Your task to perform on an android device: Search for asus rog on costco, select the first entry, add it to the cart, then select checkout. Image 0: 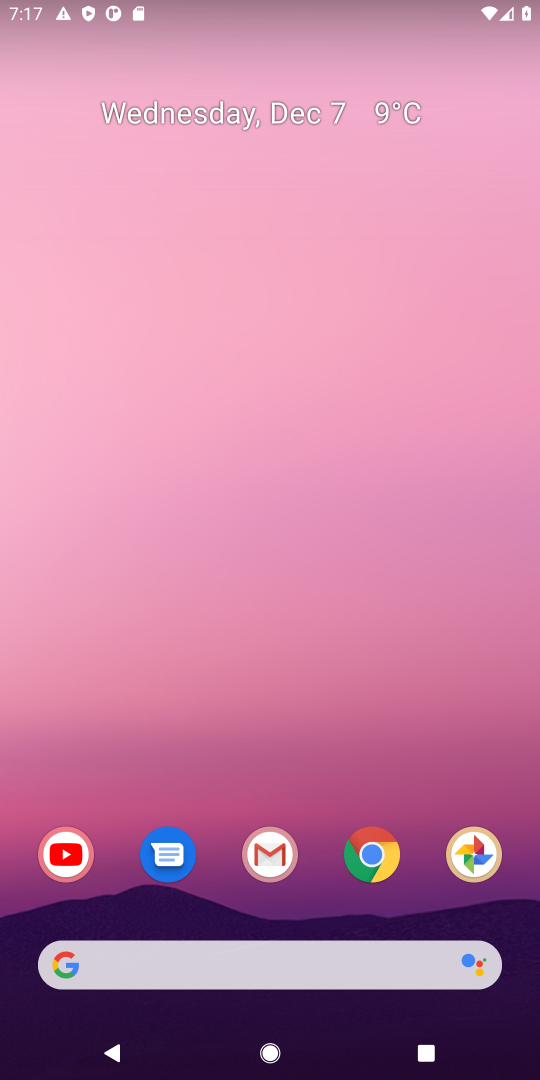
Step 0: click (170, 963)
Your task to perform on an android device: Search for asus rog on costco, select the first entry, add it to the cart, then select checkout. Image 1: 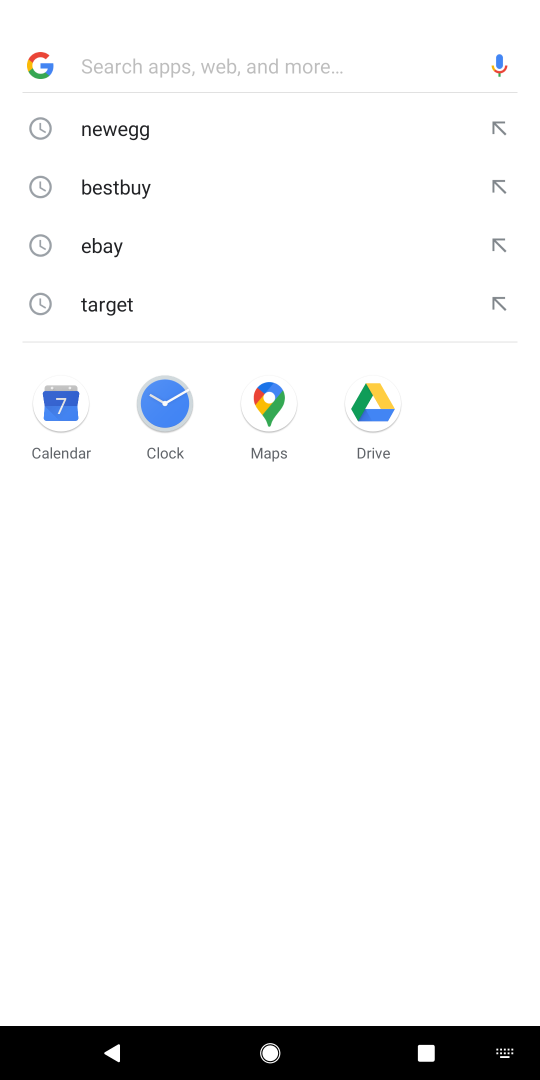
Step 1: type "costco"
Your task to perform on an android device: Search for asus rog on costco, select the first entry, add it to the cart, then select checkout. Image 2: 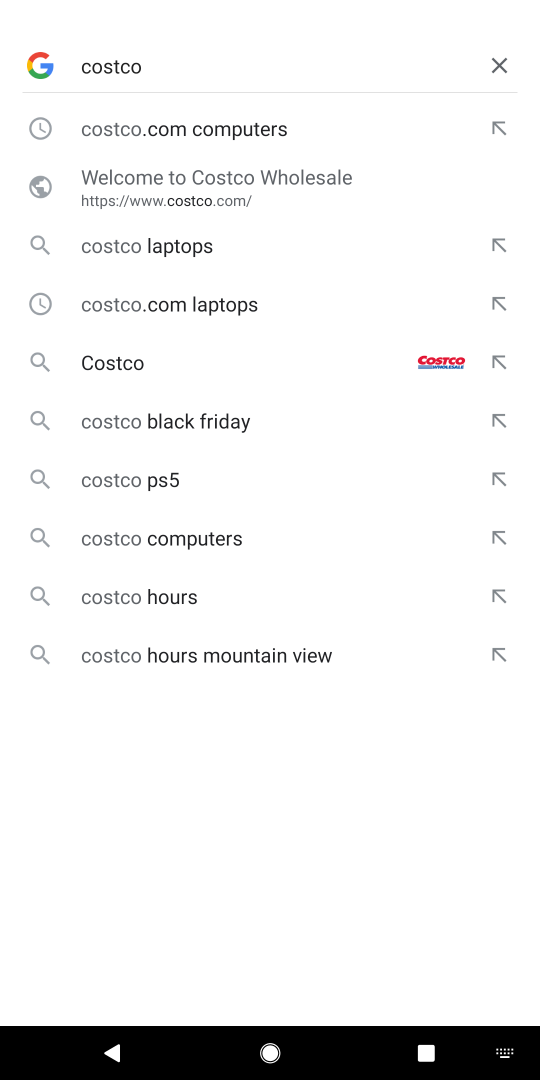
Step 2: click (152, 165)
Your task to perform on an android device: Search for asus rog on costco, select the first entry, add it to the cart, then select checkout. Image 3: 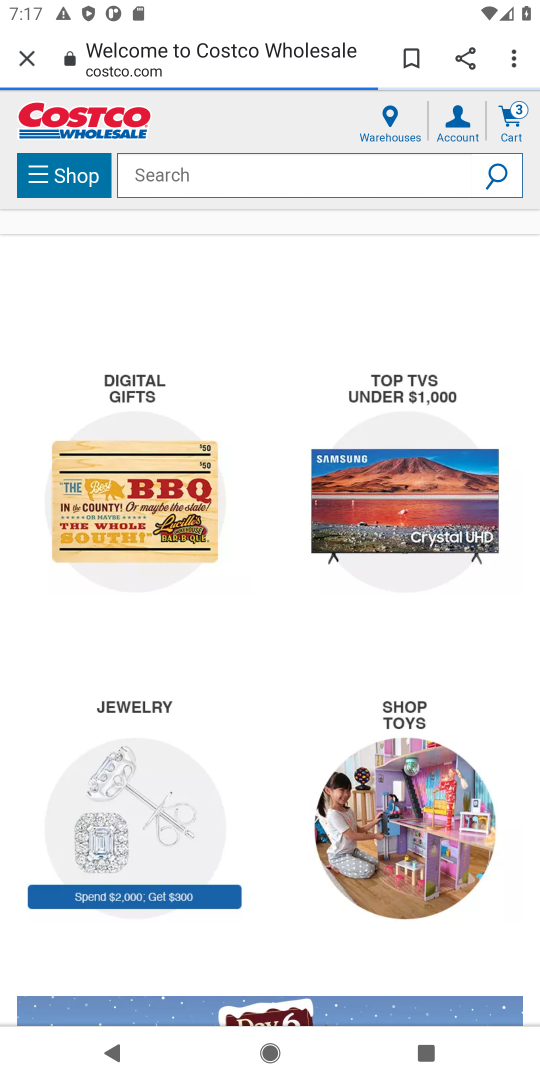
Step 3: click (152, 165)
Your task to perform on an android device: Search for asus rog on costco, select the first entry, add it to the cart, then select checkout. Image 4: 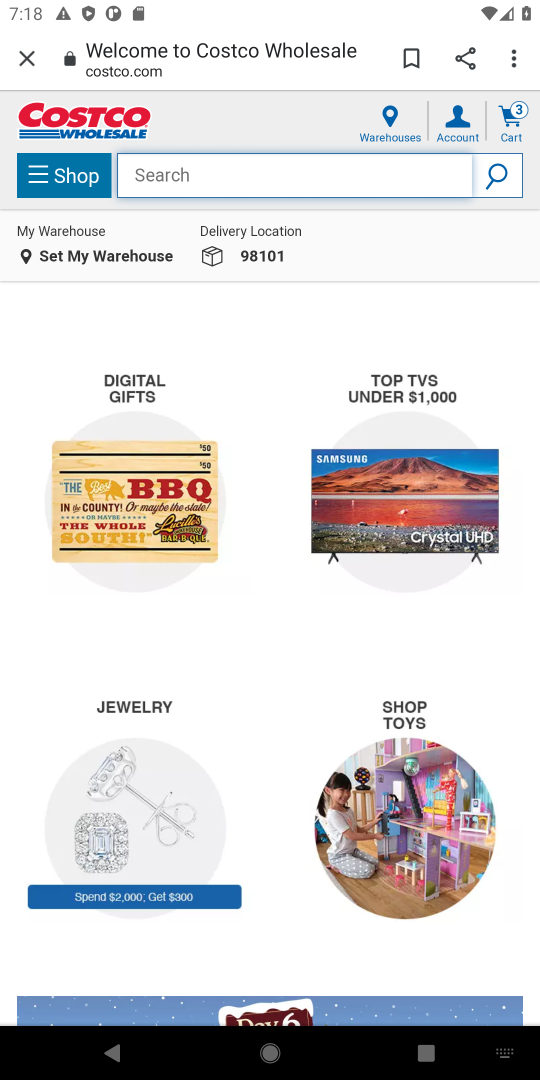
Step 4: type "asus rog"
Your task to perform on an android device: Search for asus rog on costco, select the first entry, add it to the cart, then select checkout. Image 5: 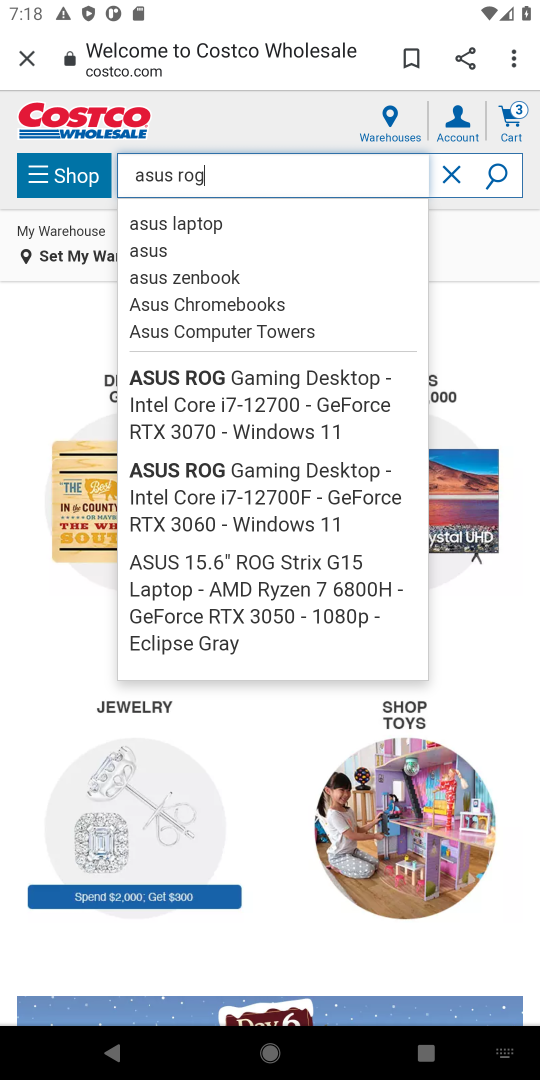
Step 5: click (494, 181)
Your task to perform on an android device: Search for asus rog on costco, select the first entry, add it to the cart, then select checkout. Image 6: 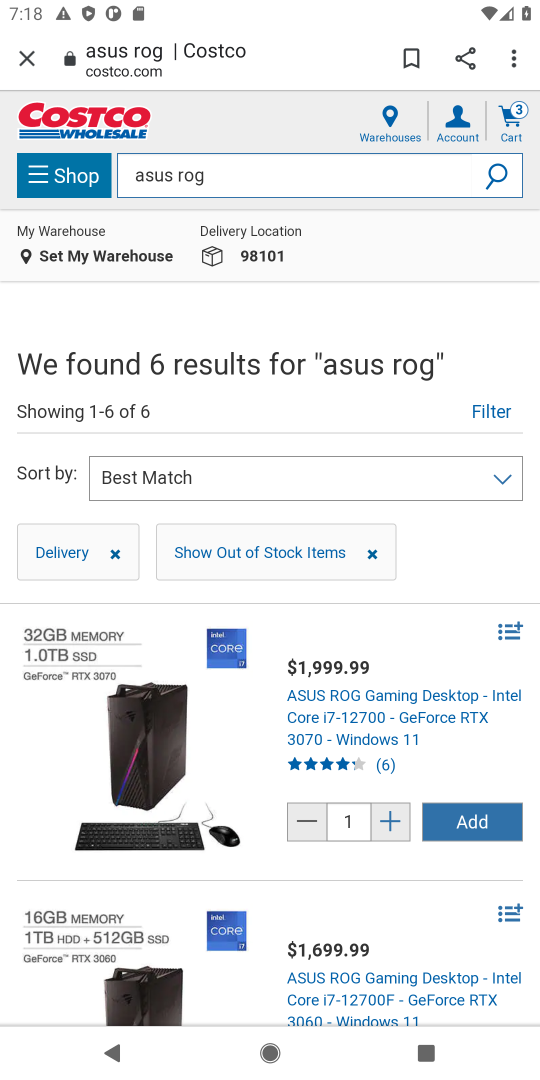
Step 6: click (496, 820)
Your task to perform on an android device: Search for asus rog on costco, select the first entry, add it to the cart, then select checkout. Image 7: 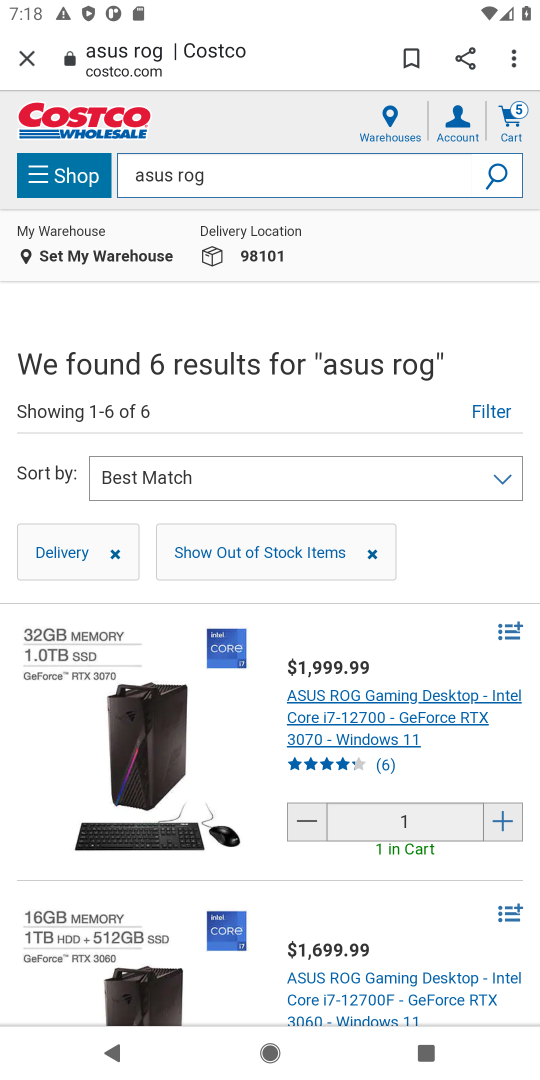
Step 7: task complete